Your task to perform on an android device: turn off javascript in the chrome app Image 0: 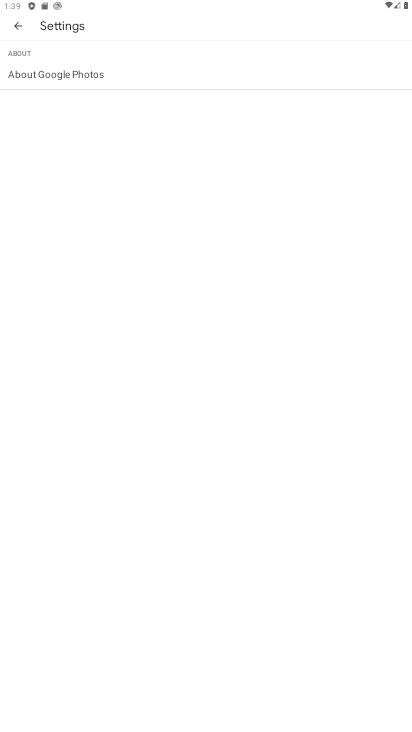
Step 0: press home button
Your task to perform on an android device: turn off javascript in the chrome app Image 1: 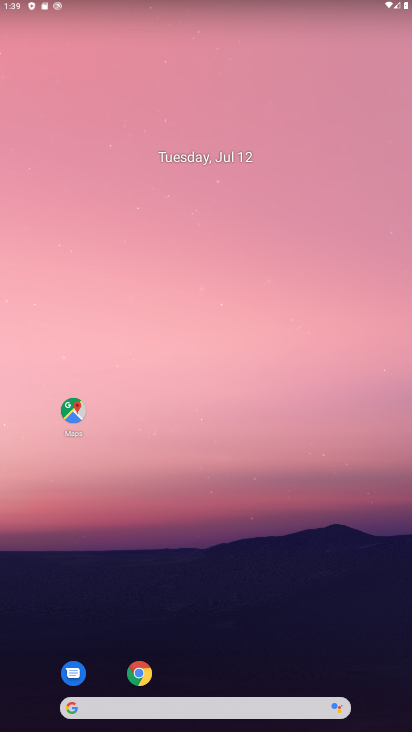
Step 1: click (135, 677)
Your task to perform on an android device: turn off javascript in the chrome app Image 2: 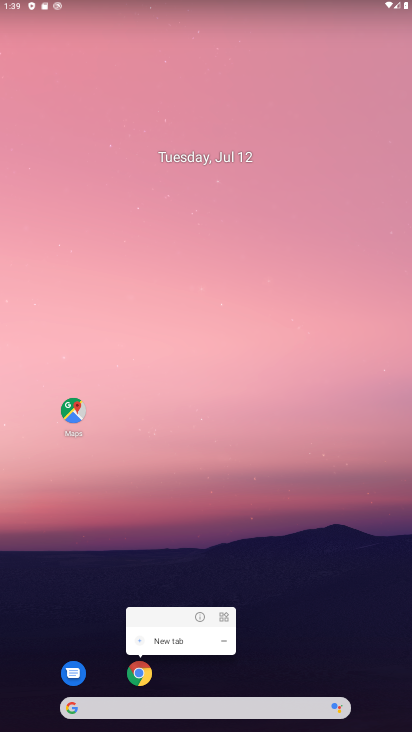
Step 2: click (134, 678)
Your task to perform on an android device: turn off javascript in the chrome app Image 3: 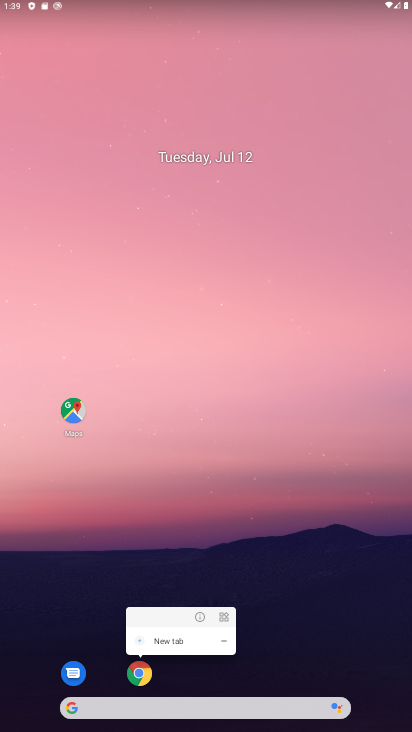
Step 3: click (141, 674)
Your task to perform on an android device: turn off javascript in the chrome app Image 4: 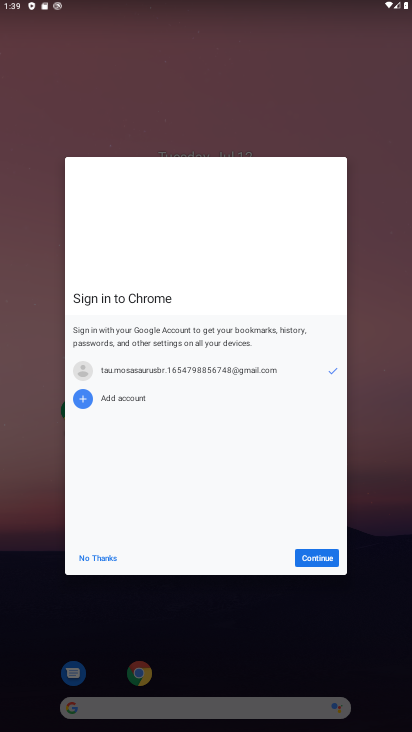
Step 4: click (318, 558)
Your task to perform on an android device: turn off javascript in the chrome app Image 5: 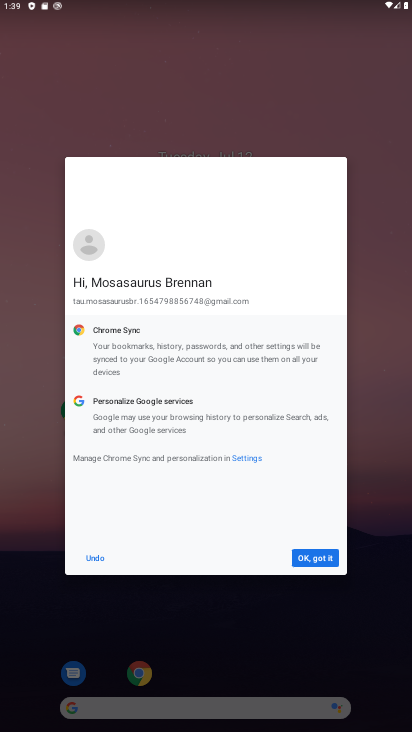
Step 5: click (318, 558)
Your task to perform on an android device: turn off javascript in the chrome app Image 6: 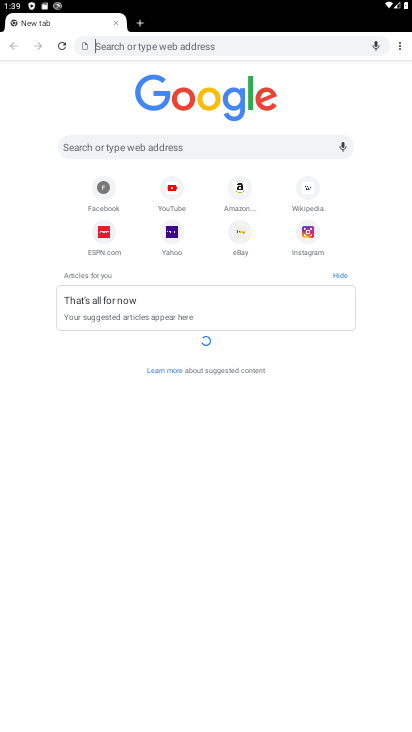
Step 6: click (403, 45)
Your task to perform on an android device: turn off javascript in the chrome app Image 7: 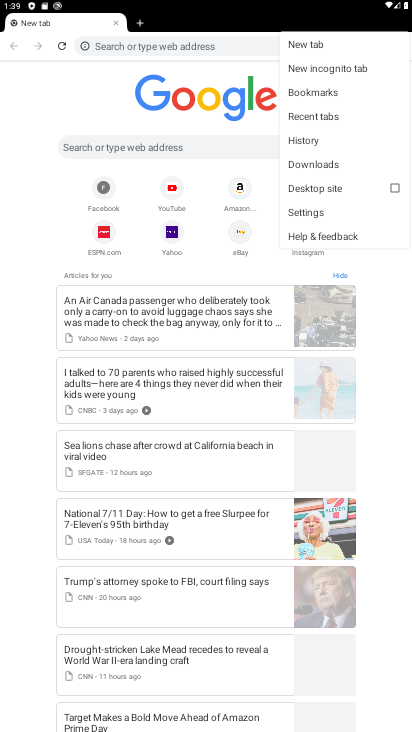
Step 7: click (301, 209)
Your task to perform on an android device: turn off javascript in the chrome app Image 8: 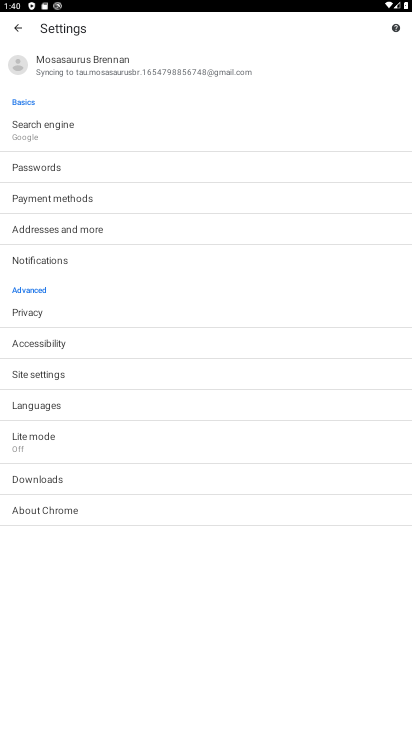
Step 8: click (46, 372)
Your task to perform on an android device: turn off javascript in the chrome app Image 9: 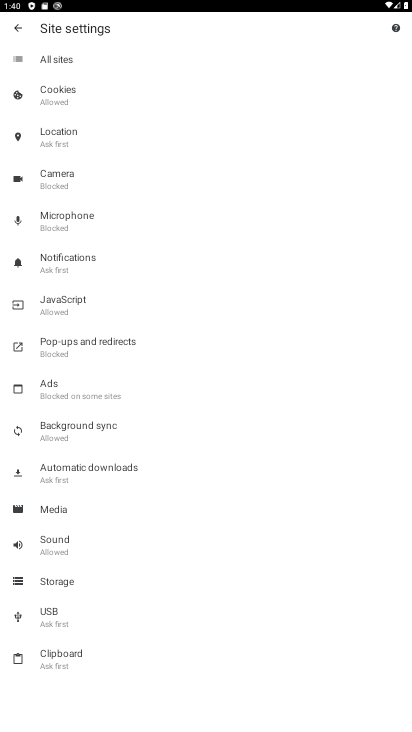
Step 9: click (48, 316)
Your task to perform on an android device: turn off javascript in the chrome app Image 10: 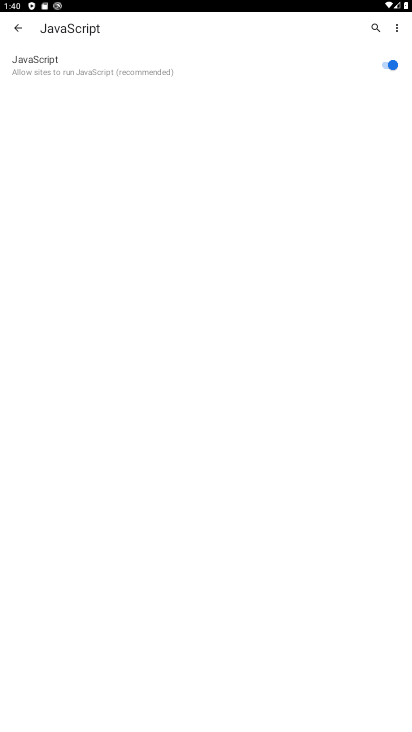
Step 10: click (386, 67)
Your task to perform on an android device: turn off javascript in the chrome app Image 11: 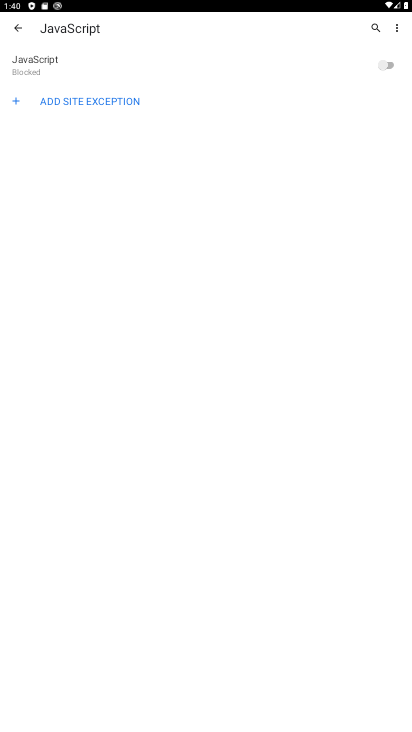
Step 11: task complete